Your task to perform on an android device: Go to CNN.com Image 0: 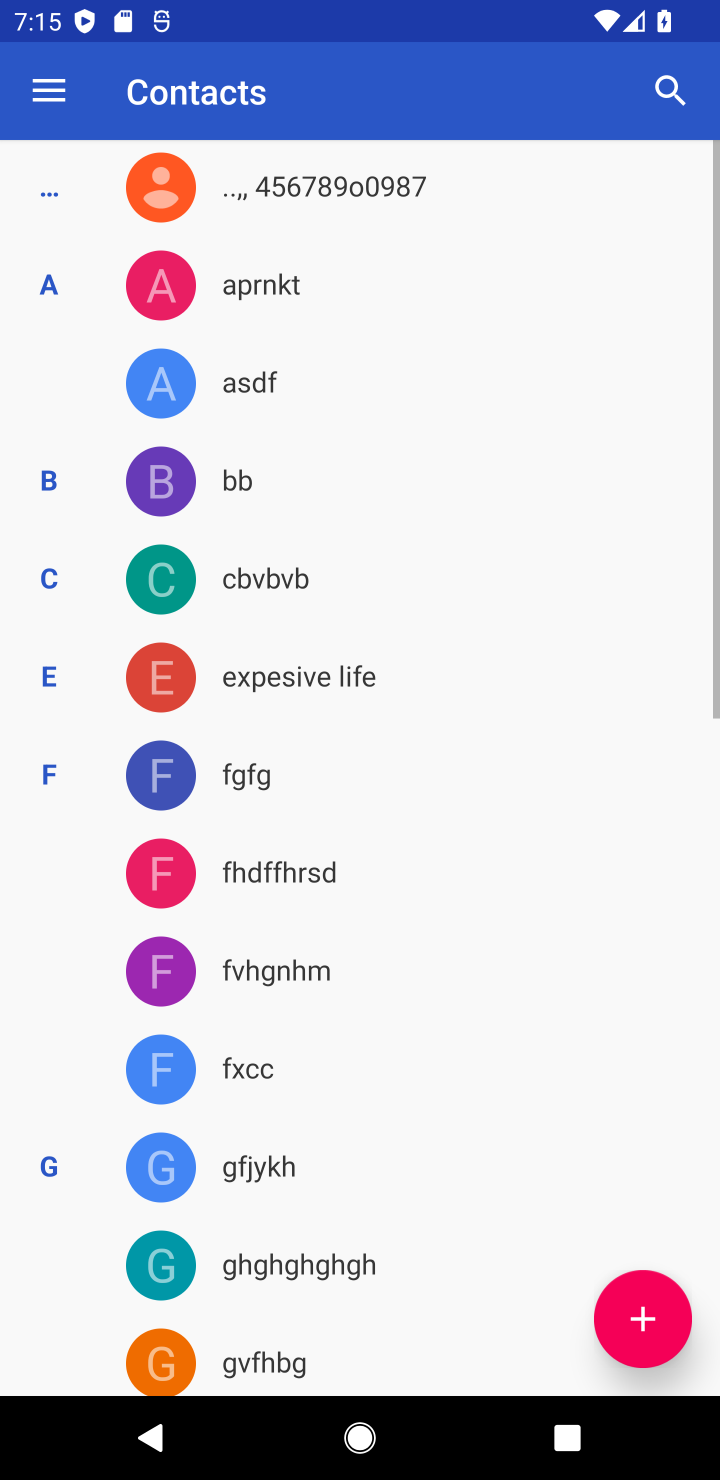
Step 0: press back button
Your task to perform on an android device: Go to CNN.com Image 1: 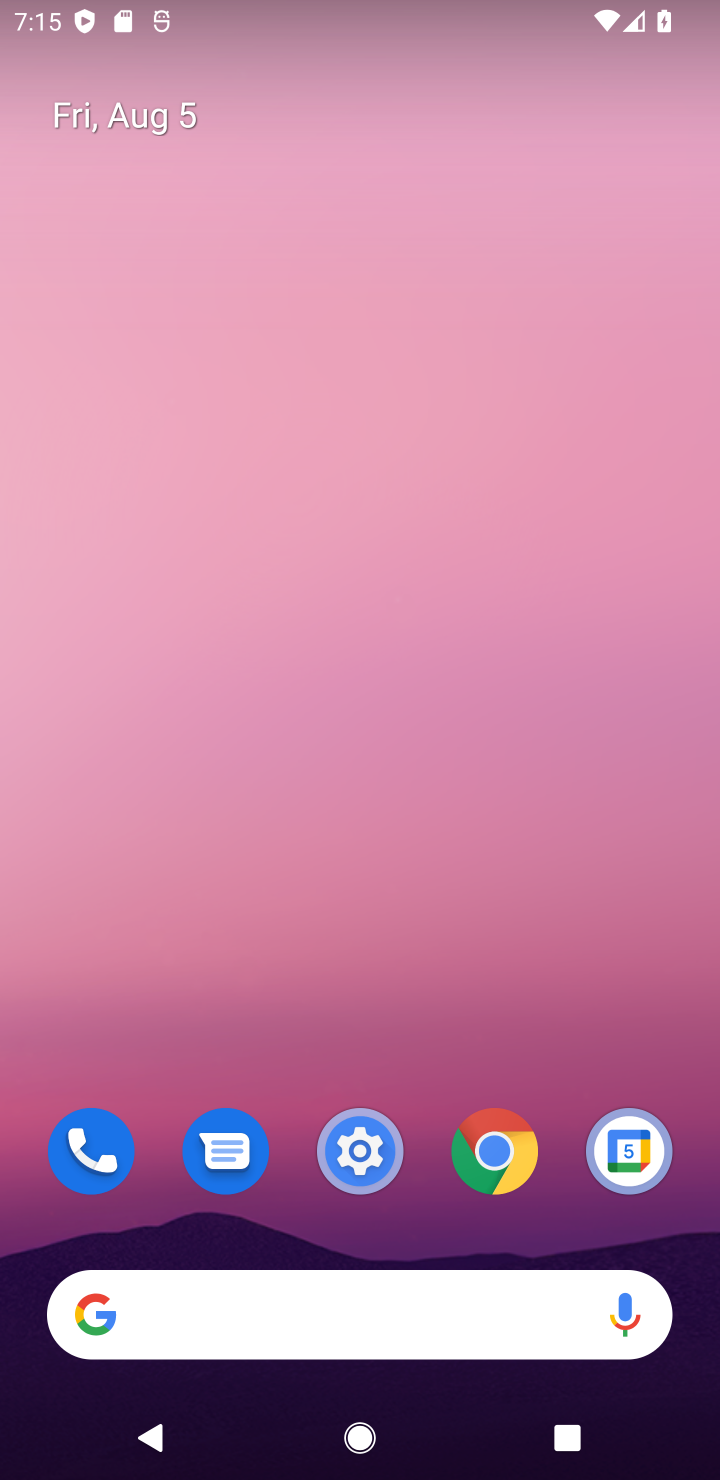
Step 1: click (500, 1153)
Your task to perform on an android device: Go to CNN.com Image 2: 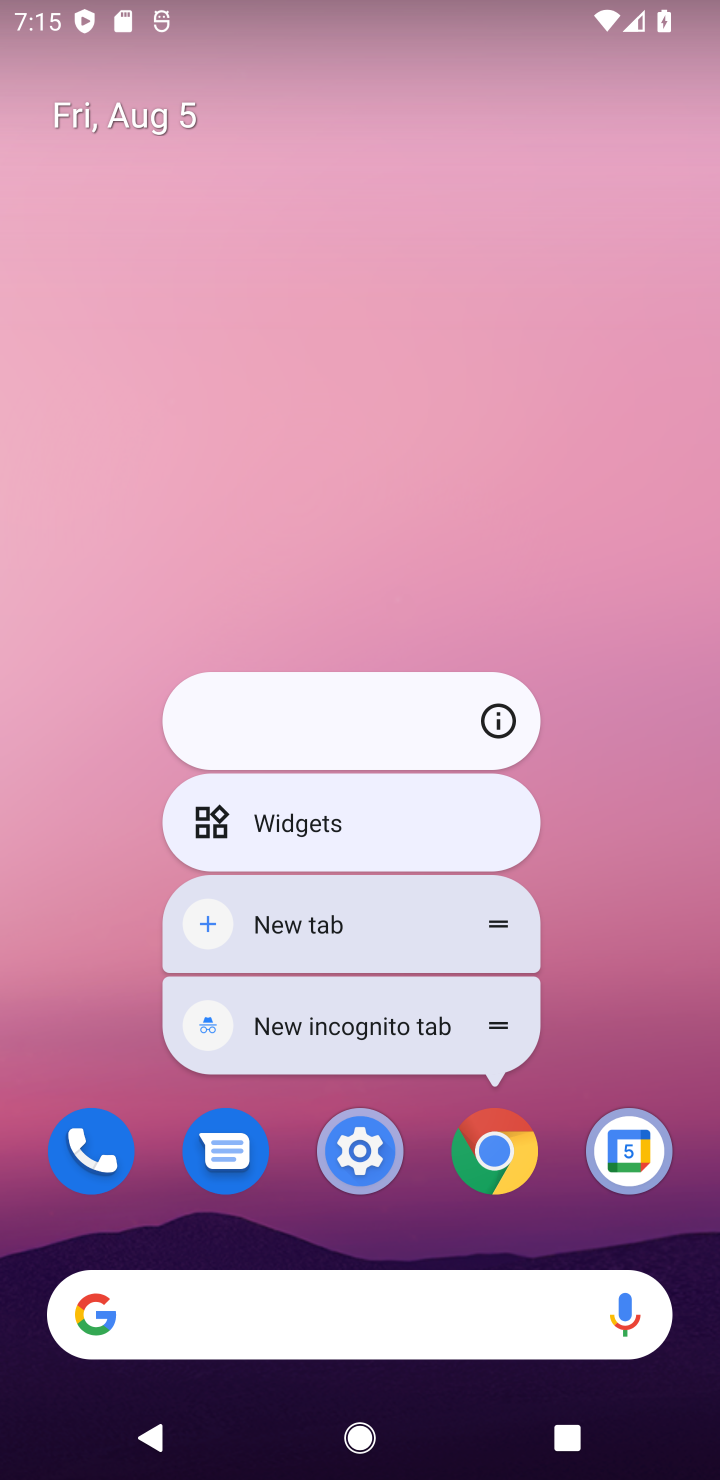
Step 2: click (500, 1153)
Your task to perform on an android device: Go to CNN.com Image 3: 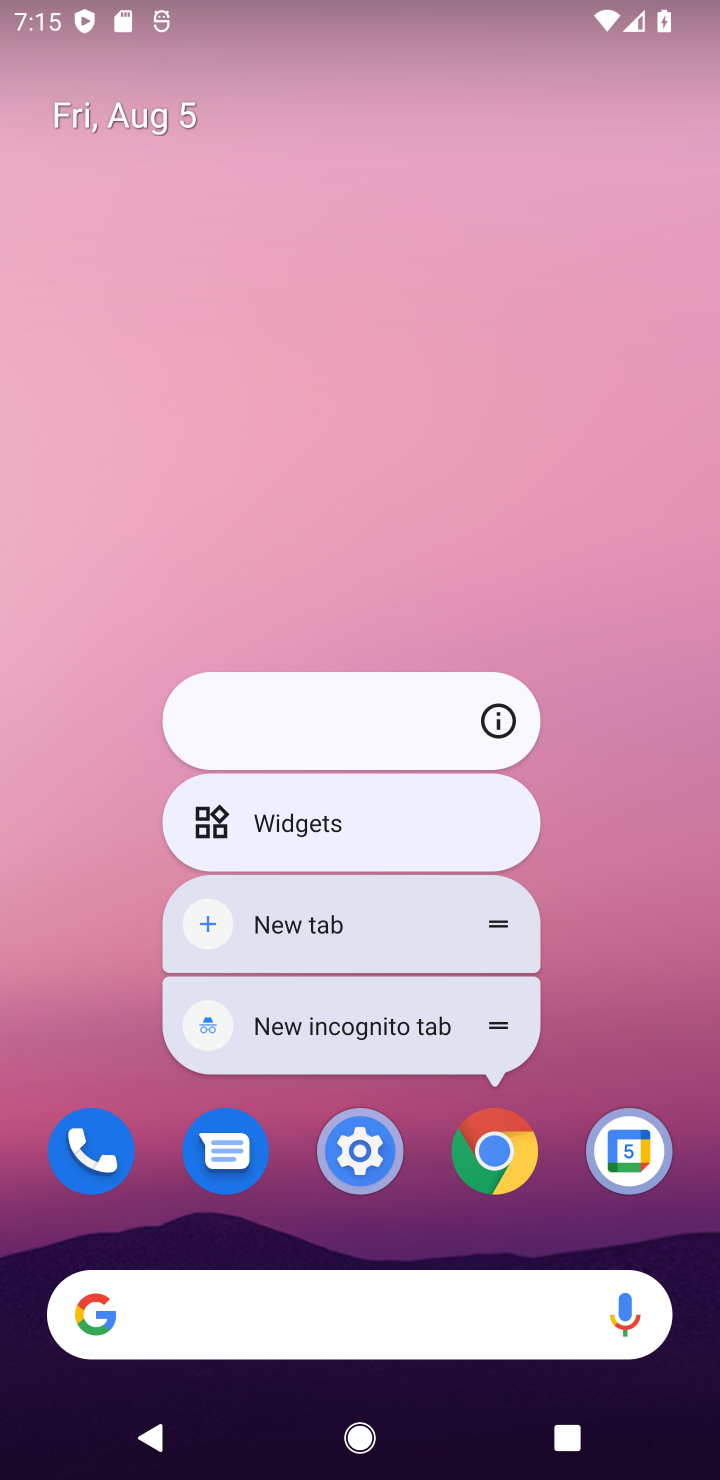
Step 3: click (498, 1153)
Your task to perform on an android device: Go to CNN.com Image 4: 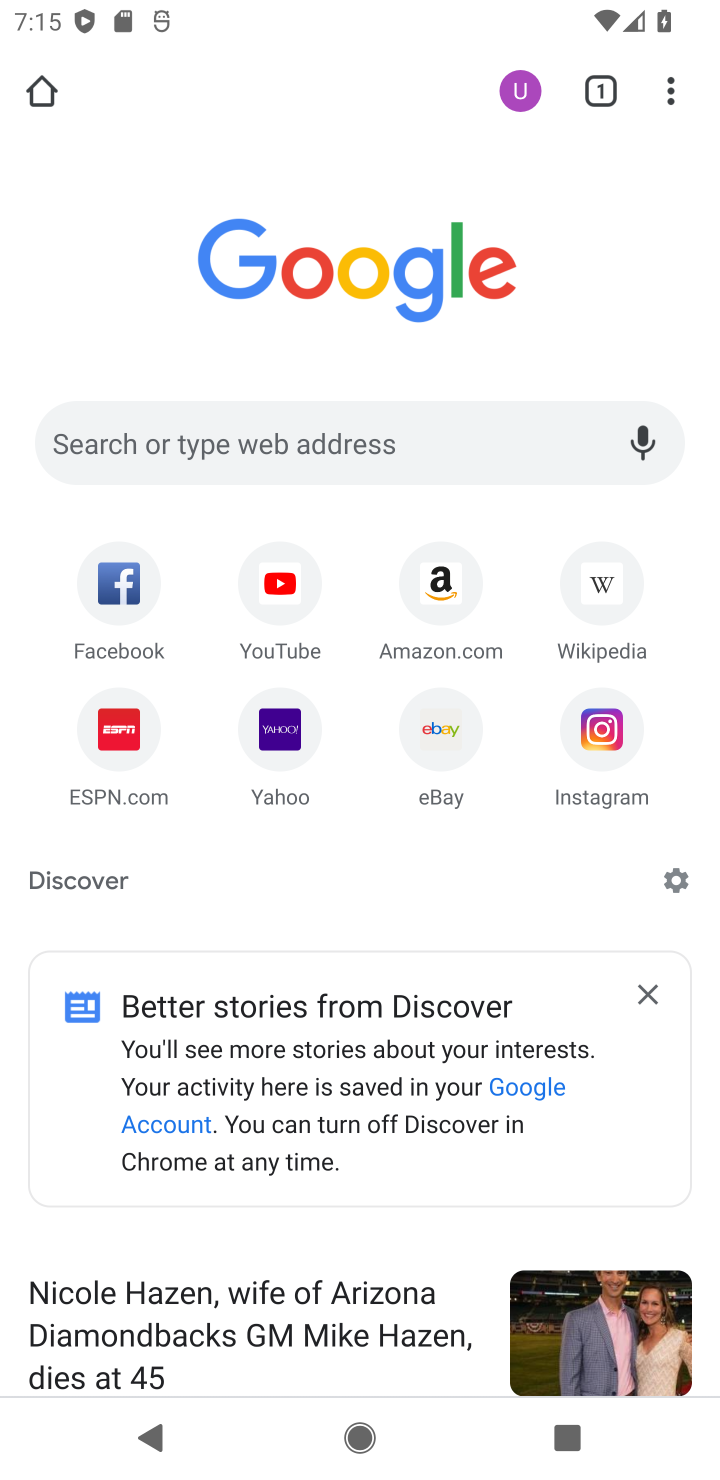
Step 4: drag from (280, 414) to (347, 414)
Your task to perform on an android device: Go to CNN.com Image 5: 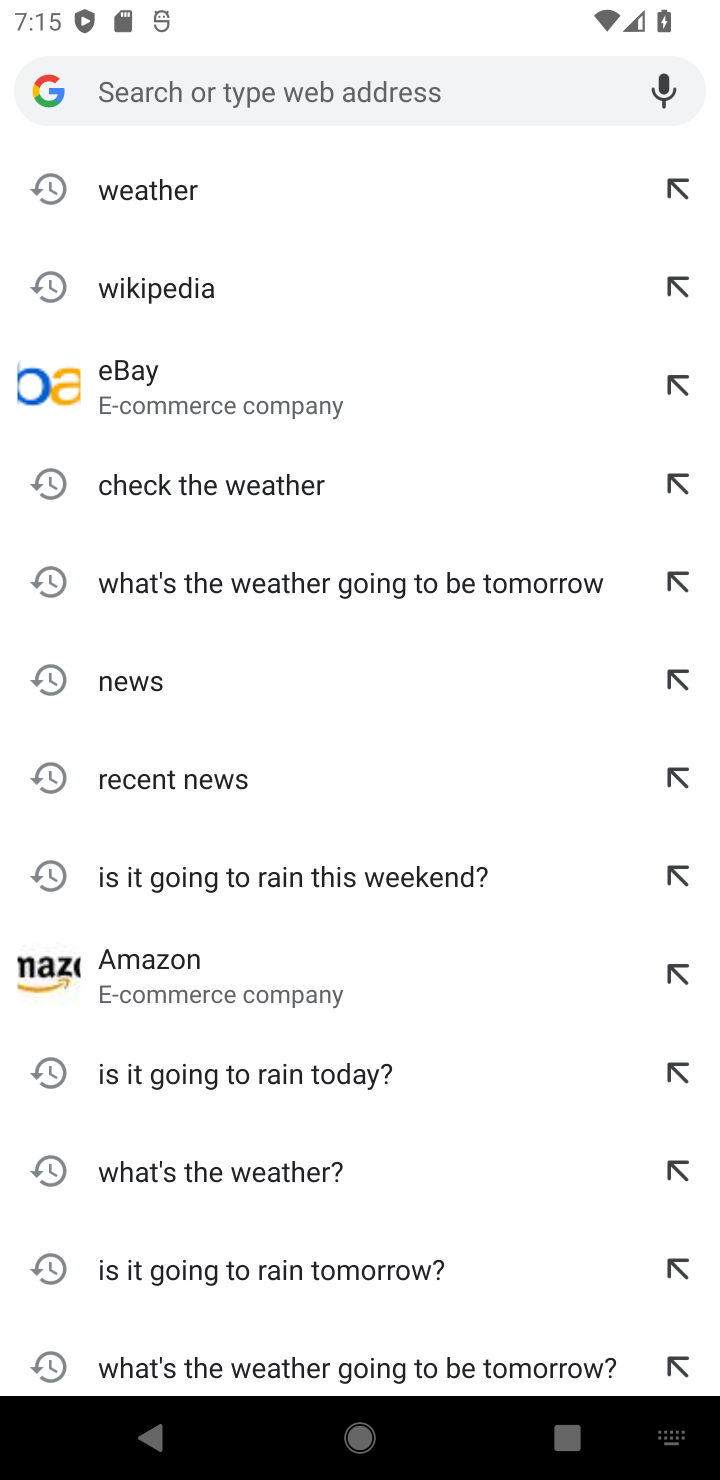
Step 5: type "CNN.com"
Your task to perform on an android device: Go to CNN.com Image 6: 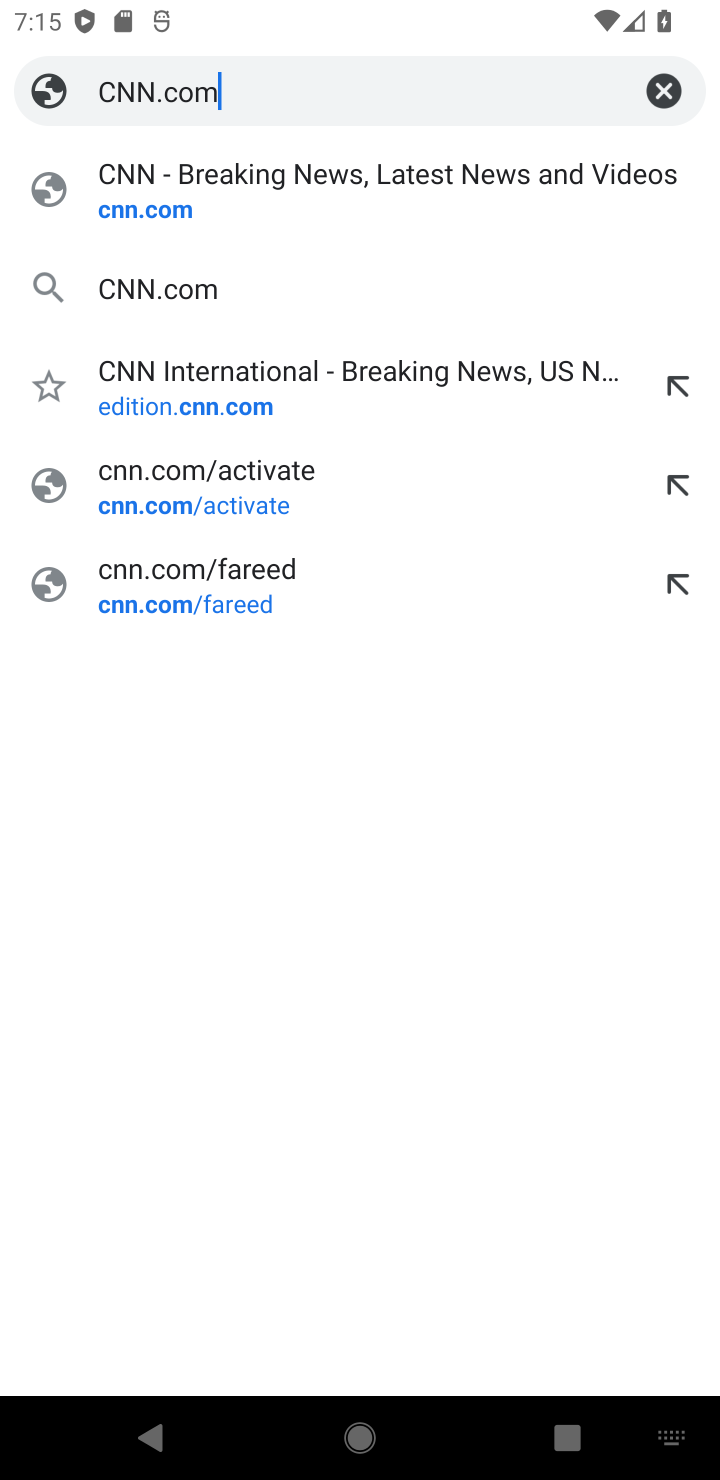
Step 6: click (240, 193)
Your task to perform on an android device: Go to CNN.com Image 7: 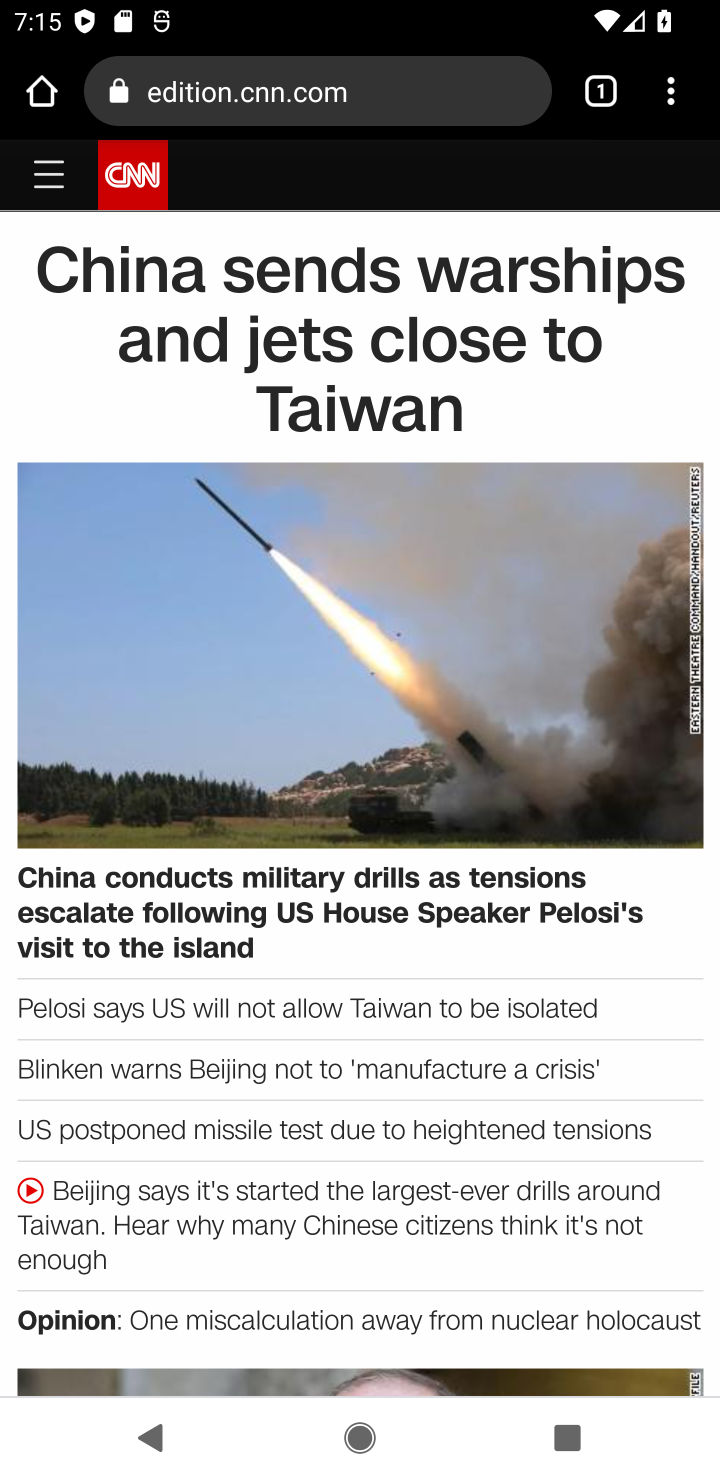
Step 7: task complete